Your task to perform on an android device: toggle improve location accuracy Image 0: 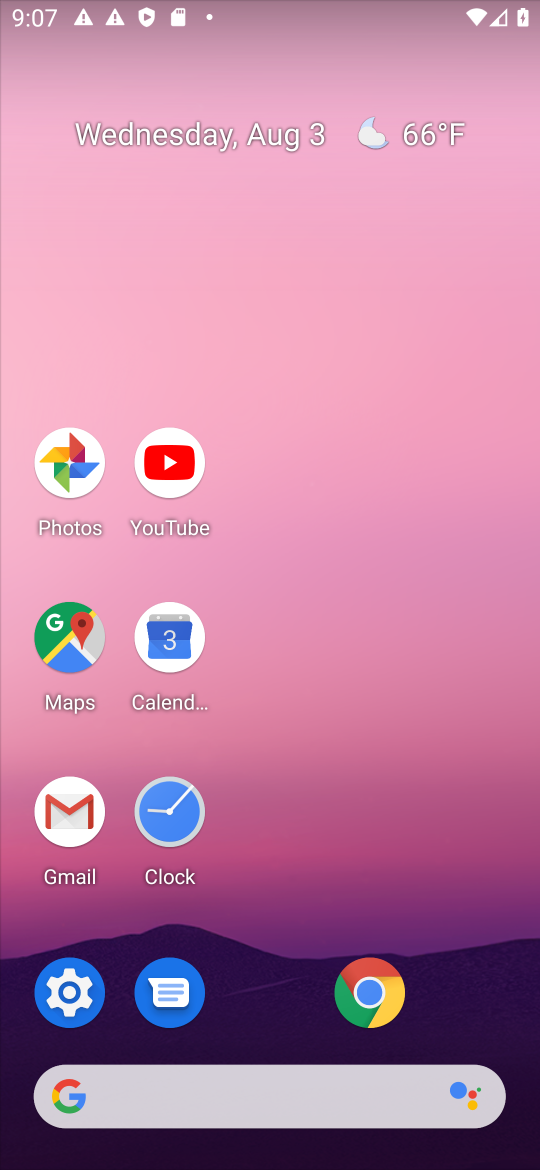
Step 0: click (69, 980)
Your task to perform on an android device: toggle improve location accuracy Image 1: 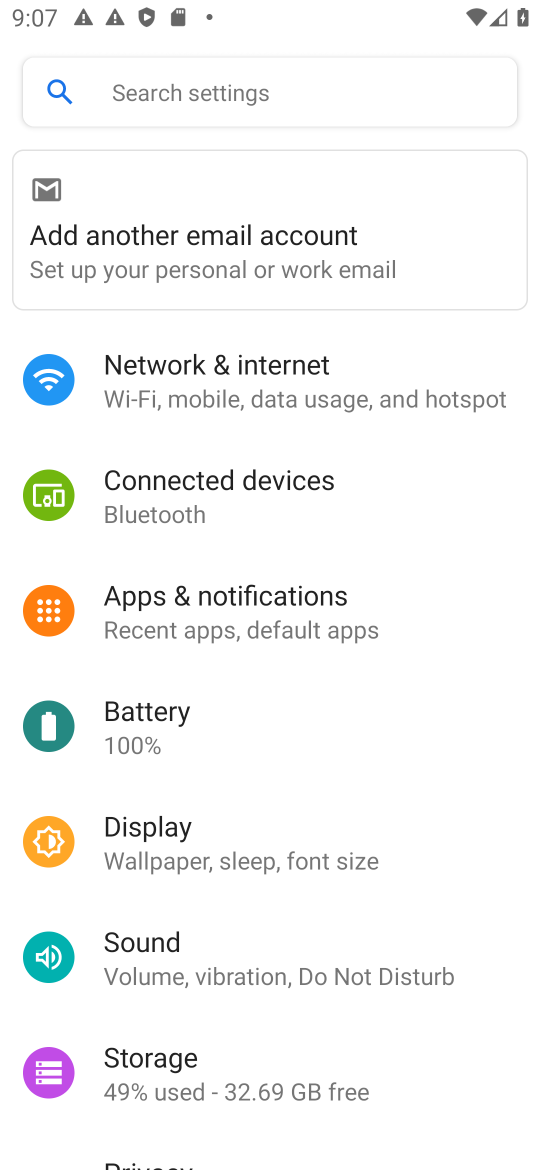
Step 1: drag from (294, 1027) to (294, 502)
Your task to perform on an android device: toggle improve location accuracy Image 2: 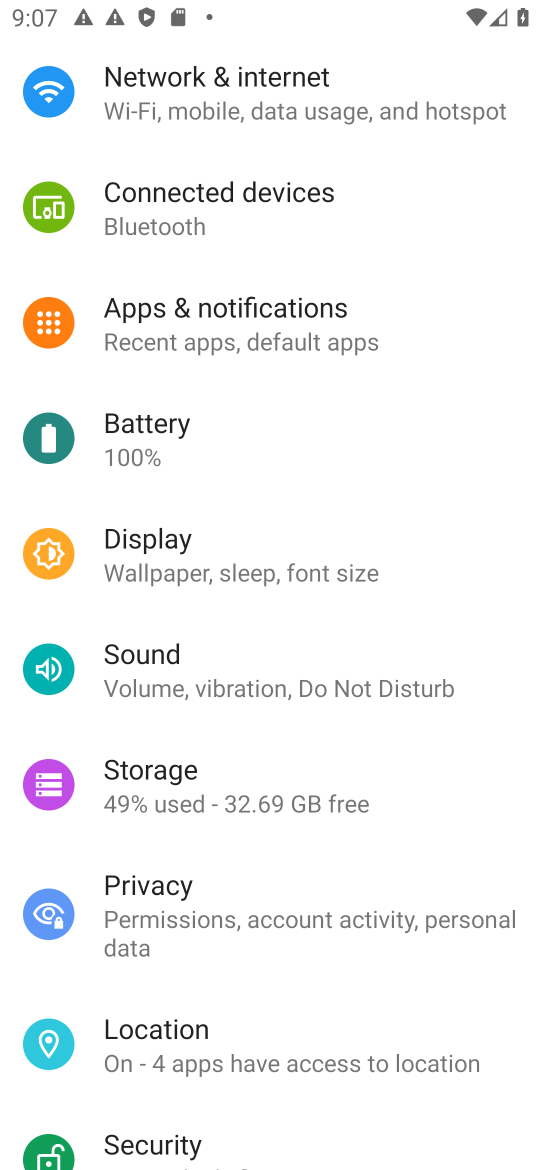
Step 2: click (160, 1027)
Your task to perform on an android device: toggle improve location accuracy Image 3: 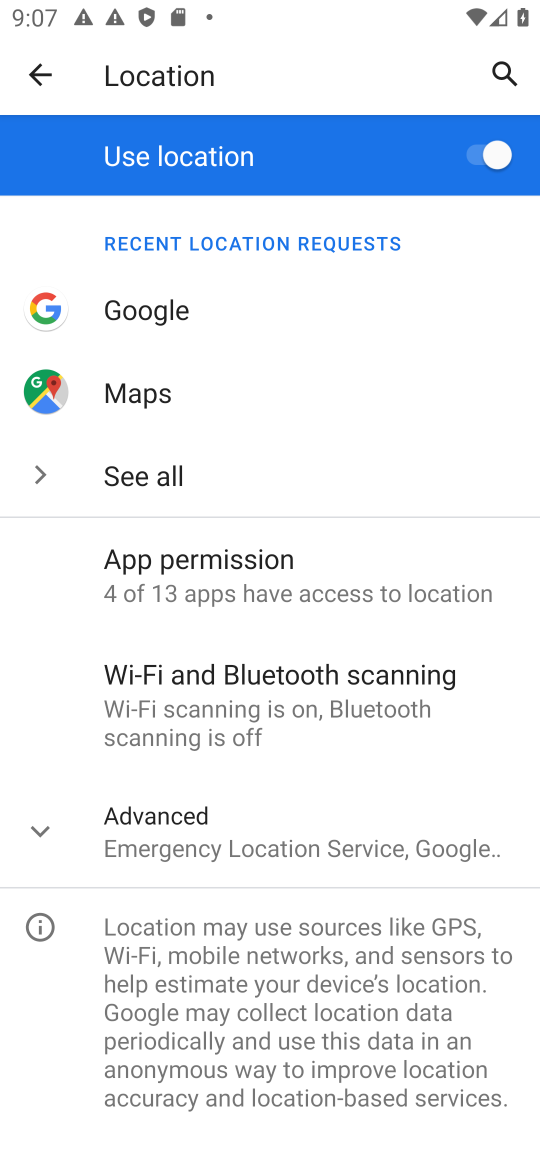
Step 3: click (59, 840)
Your task to perform on an android device: toggle improve location accuracy Image 4: 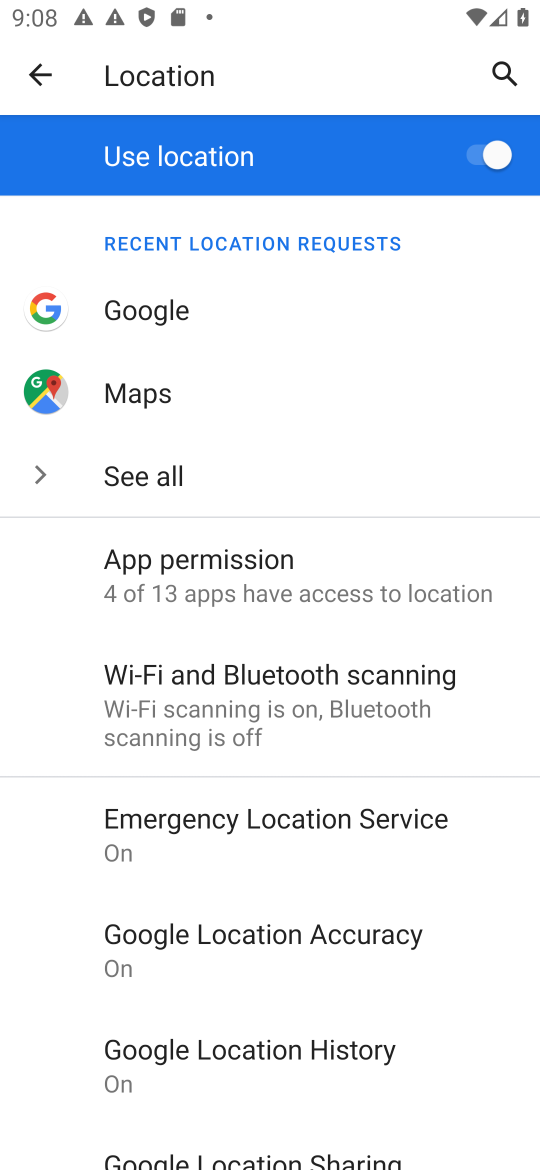
Step 4: click (263, 928)
Your task to perform on an android device: toggle improve location accuracy Image 5: 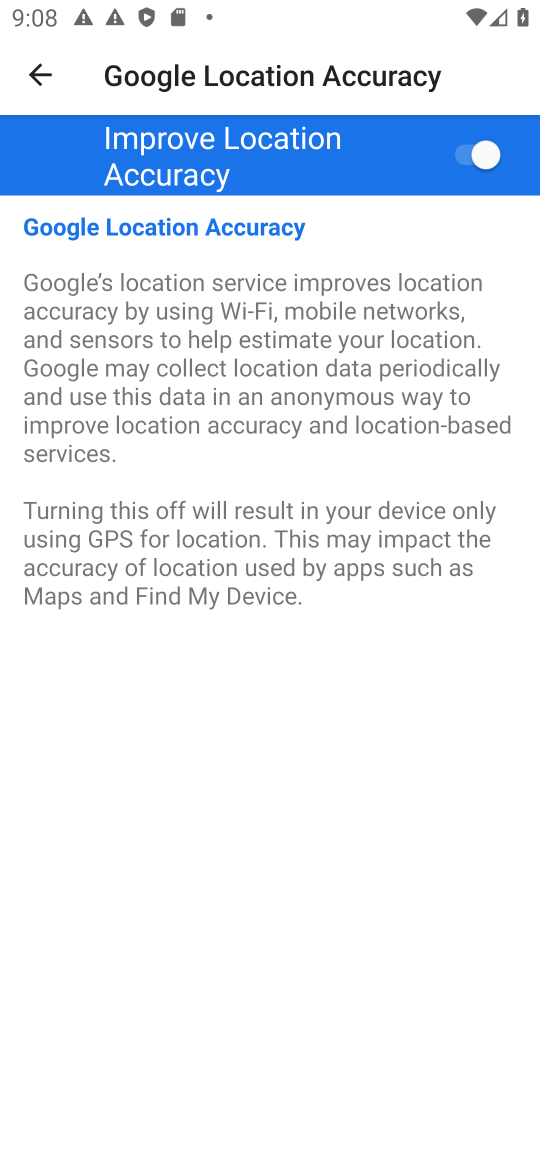
Step 5: click (486, 164)
Your task to perform on an android device: toggle improve location accuracy Image 6: 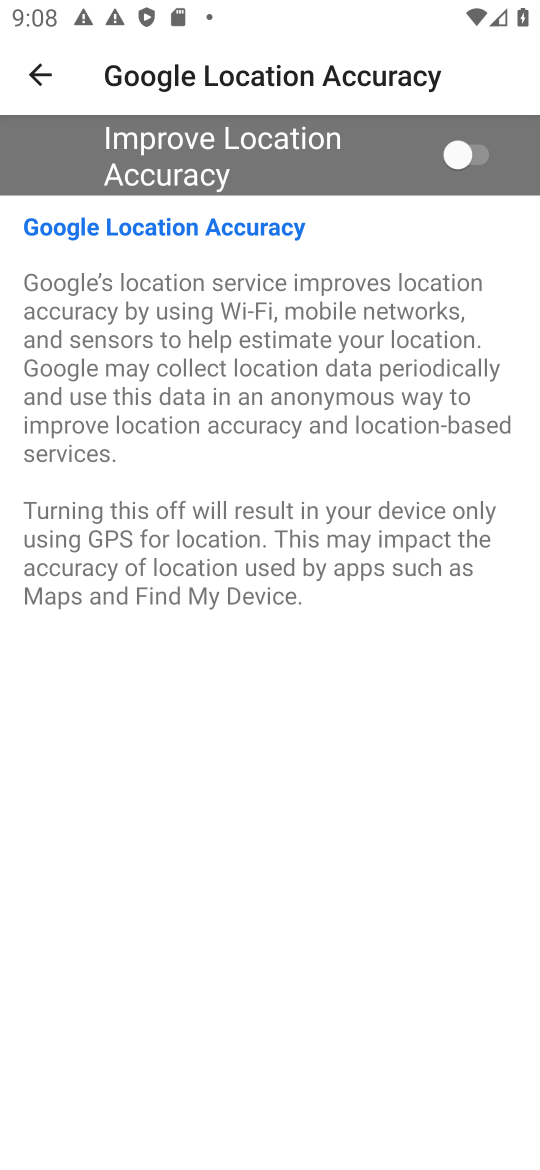
Step 6: task complete